Your task to perform on an android device: Open Youtube and go to "Your channel" Image 0: 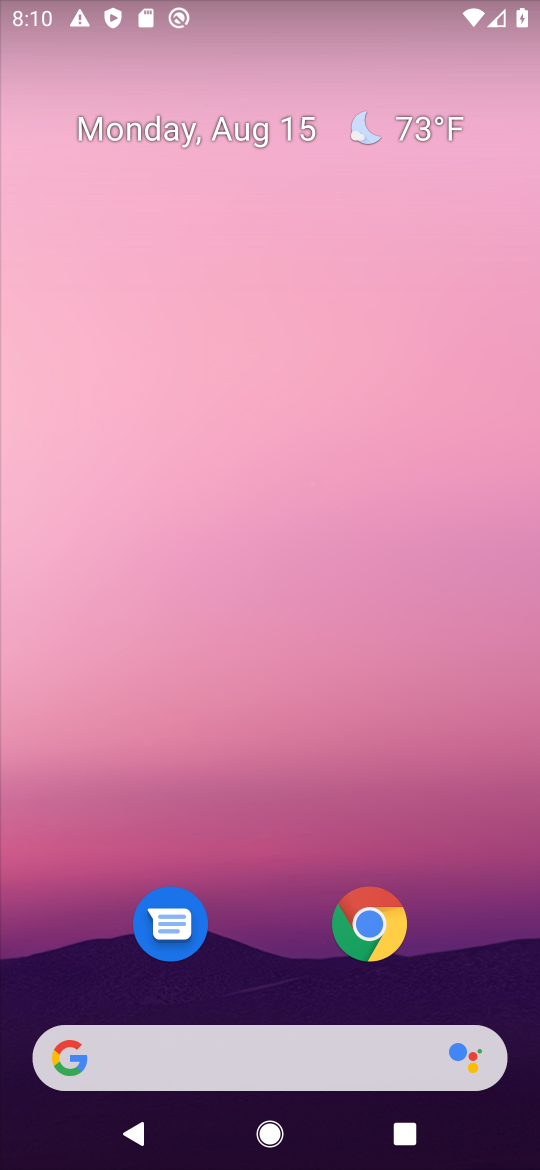
Step 0: drag from (493, 882) to (471, 83)
Your task to perform on an android device: Open Youtube and go to "Your channel" Image 1: 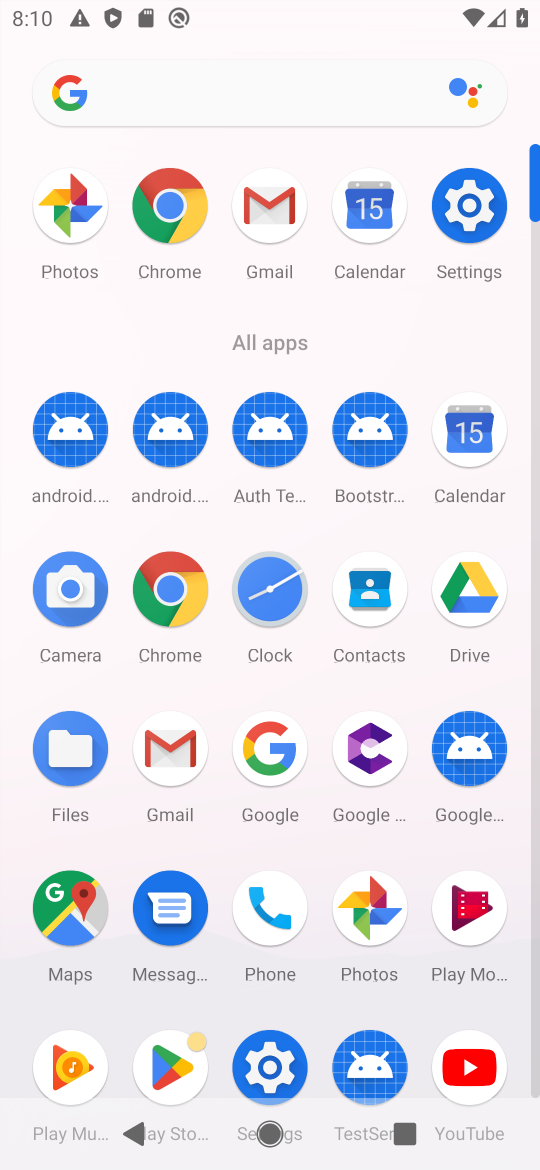
Step 1: click (463, 1061)
Your task to perform on an android device: Open Youtube and go to "Your channel" Image 2: 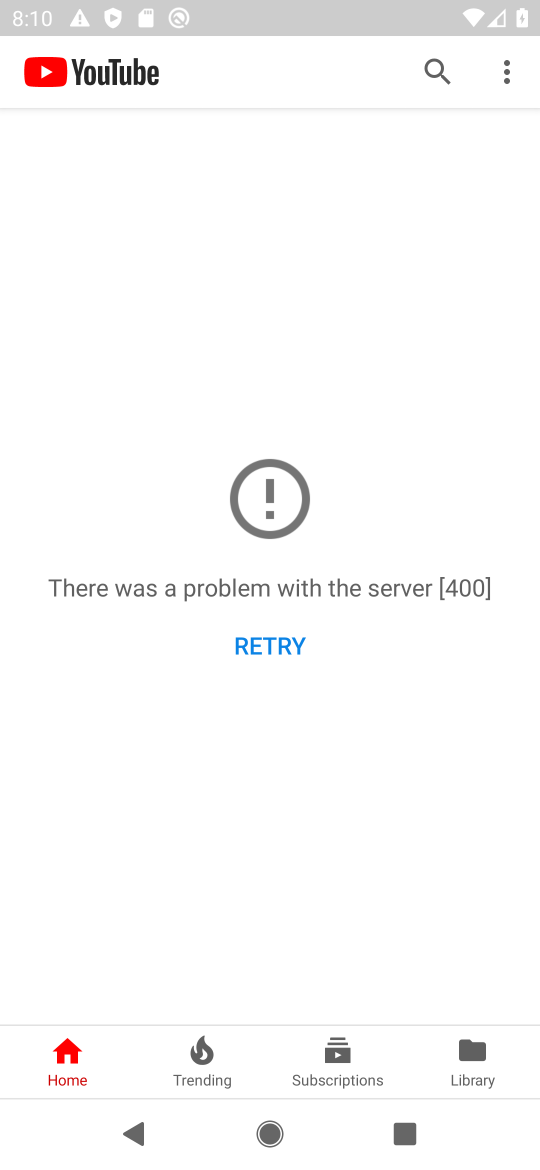
Step 2: click (258, 645)
Your task to perform on an android device: Open Youtube and go to "Your channel" Image 3: 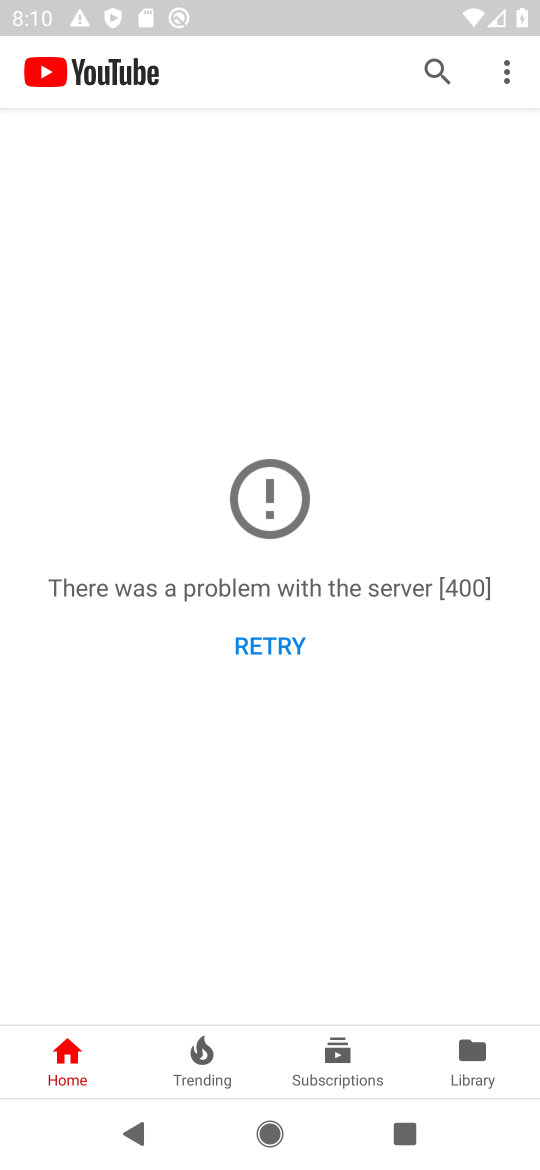
Step 3: click (499, 86)
Your task to perform on an android device: Open Youtube and go to "Your channel" Image 4: 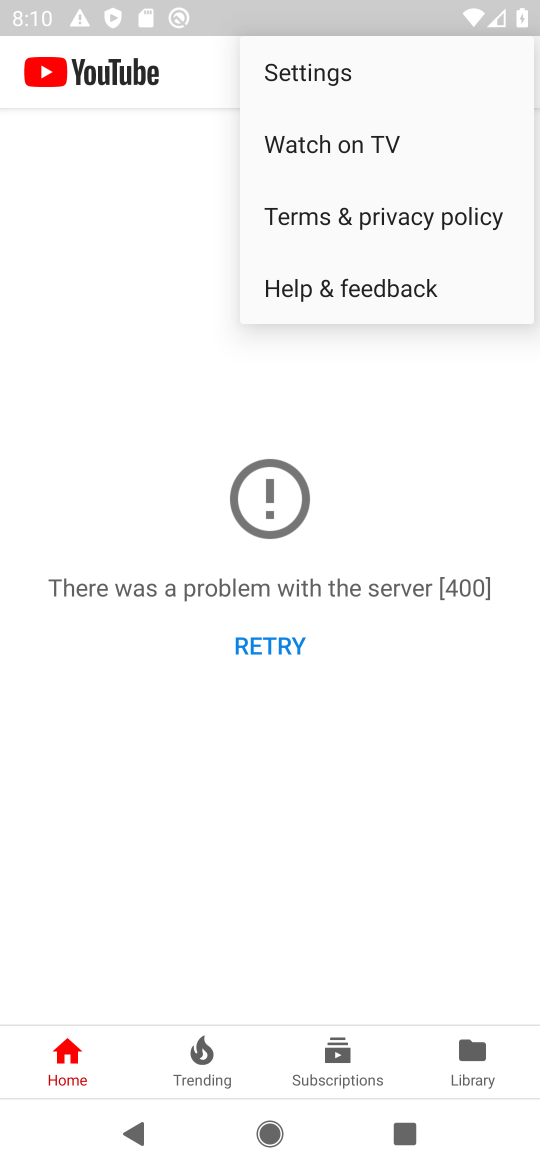
Step 4: click (310, 67)
Your task to perform on an android device: Open Youtube and go to "Your channel" Image 5: 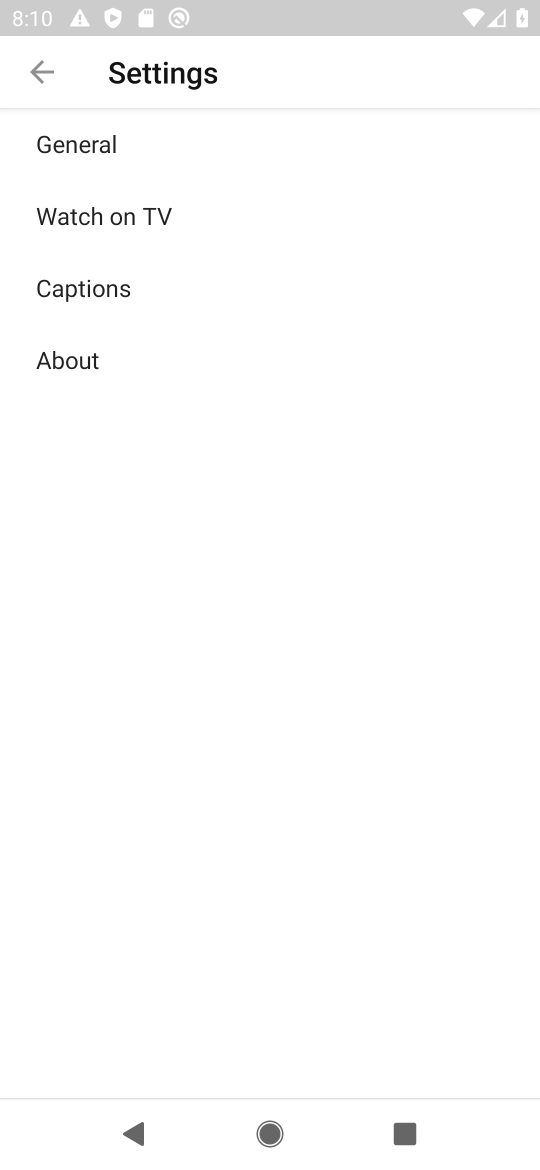
Step 5: click (79, 145)
Your task to perform on an android device: Open Youtube and go to "Your channel" Image 6: 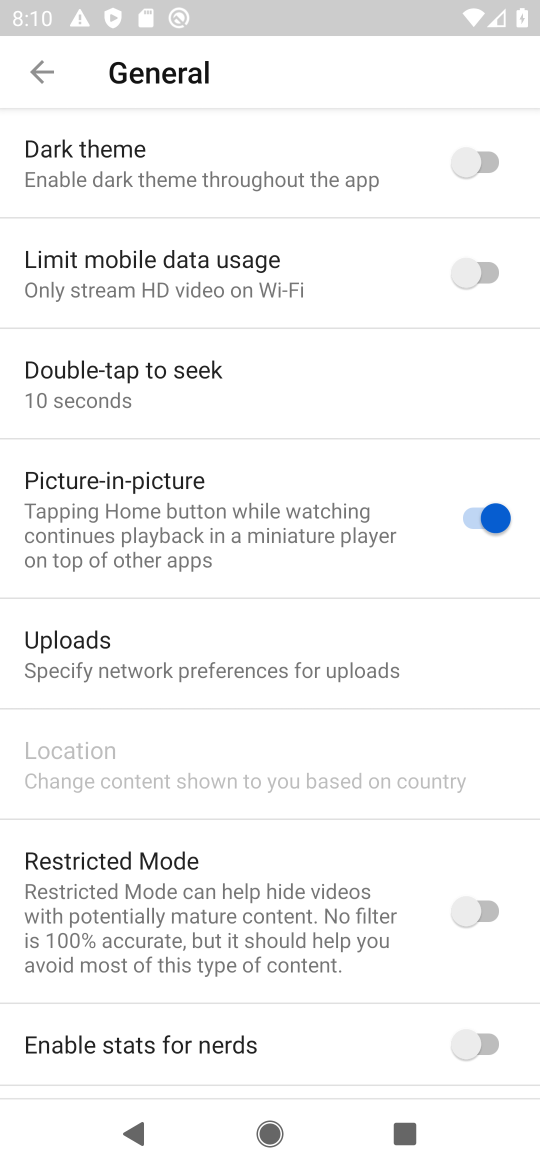
Step 6: task complete